Your task to perform on an android device: Check the news Image 0: 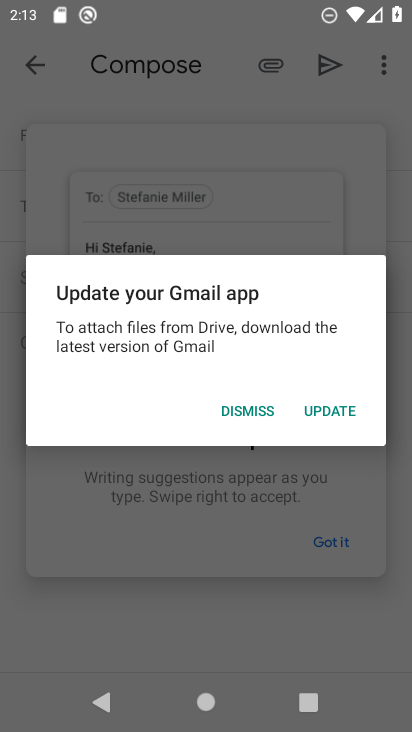
Step 0: click (236, 397)
Your task to perform on an android device: Check the news Image 1: 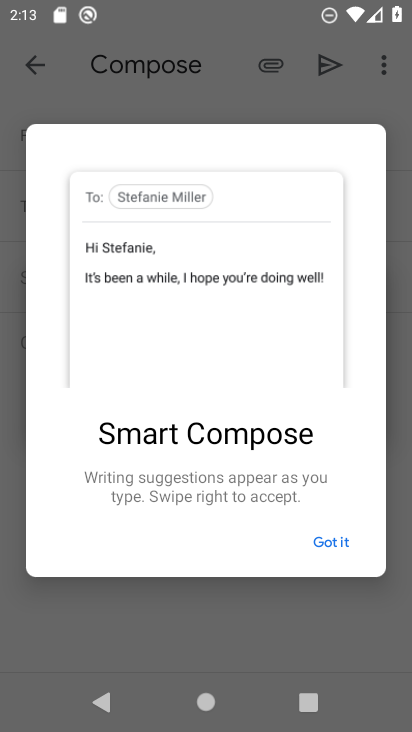
Step 1: click (333, 545)
Your task to perform on an android device: Check the news Image 2: 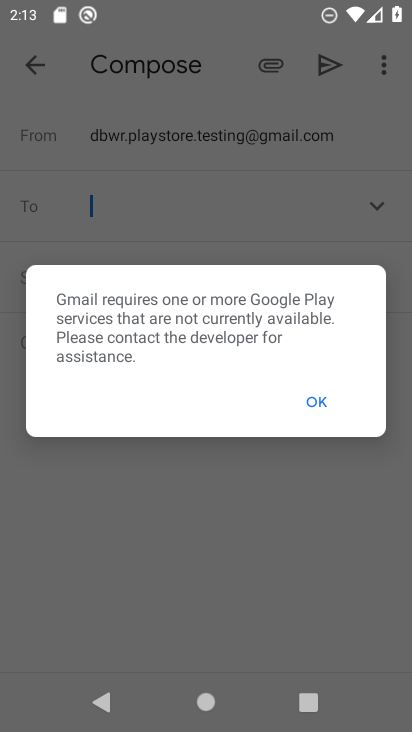
Step 2: click (305, 390)
Your task to perform on an android device: Check the news Image 3: 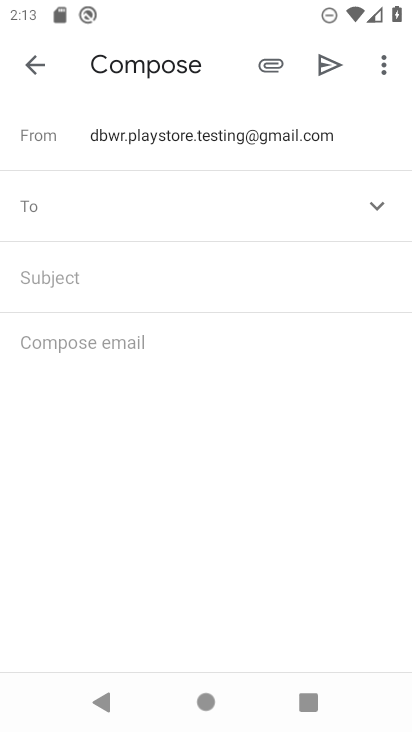
Step 3: click (26, 65)
Your task to perform on an android device: Check the news Image 4: 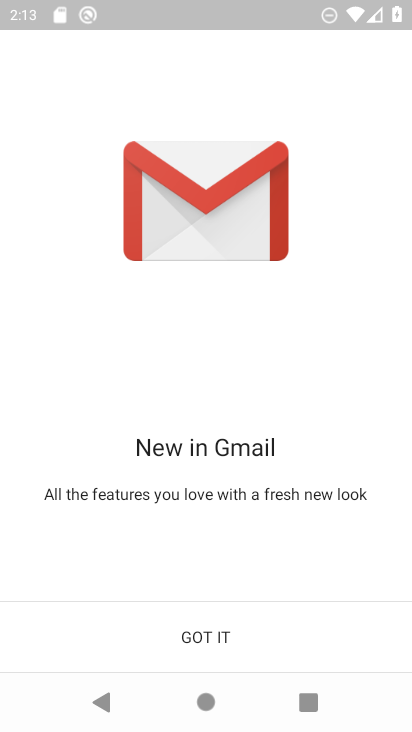
Step 4: click (209, 640)
Your task to perform on an android device: Check the news Image 5: 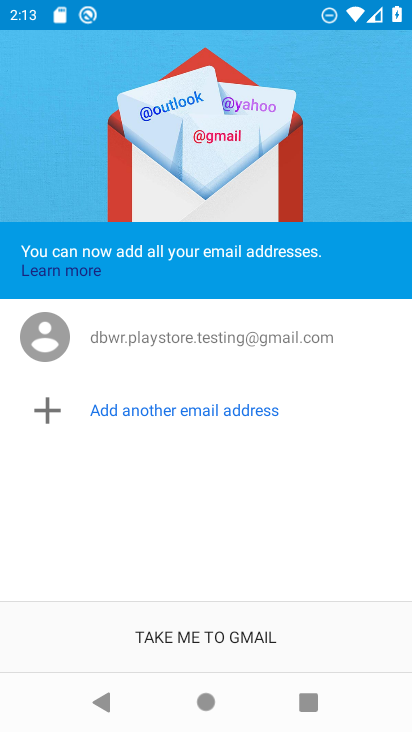
Step 5: click (204, 643)
Your task to perform on an android device: Check the news Image 6: 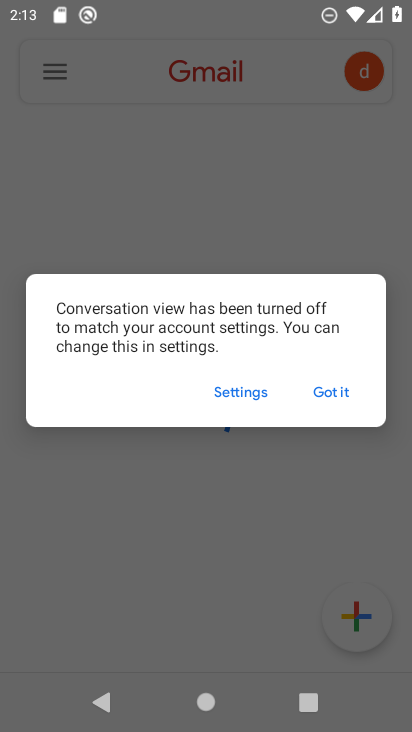
Step 6: press back button
Your task to perform on an android device: Check the news Image 7: 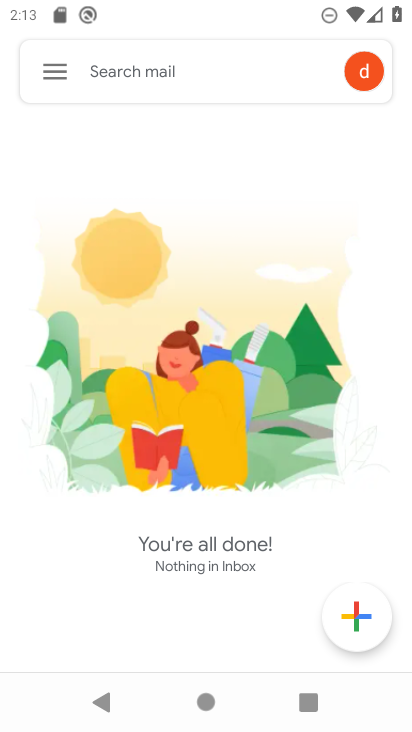
Step 7: press home button
Your task to perform on an android device: Check the news Image 8: 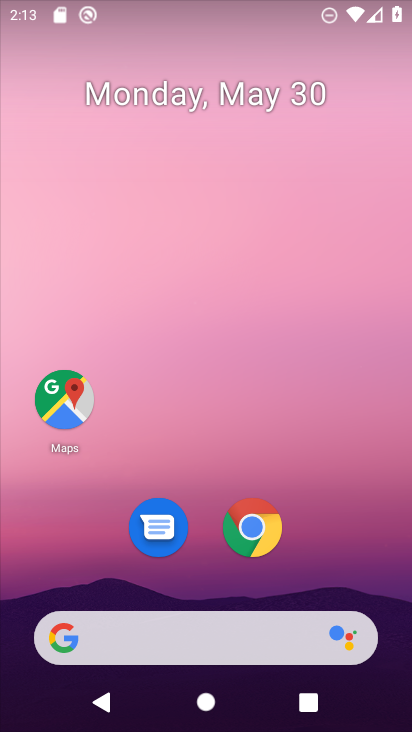
Step 8: drag from (70, 280) to (411, 490)
Your task to perform on an android device: Check the news Image 9: 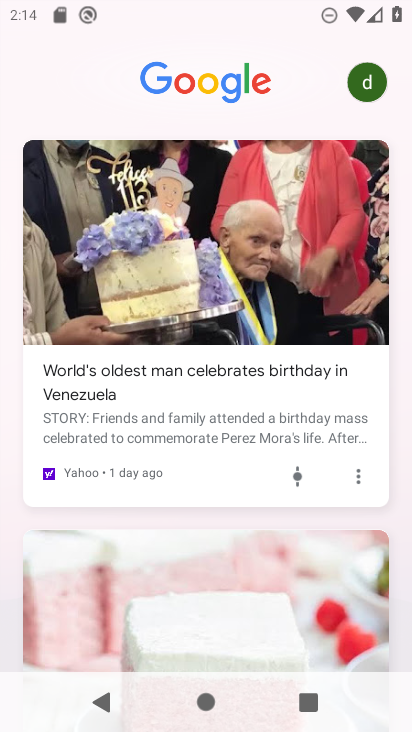
Step 9: drag from (190, 571) to (249, 261)
Your task to perform on an android device: Check the news Image 10: 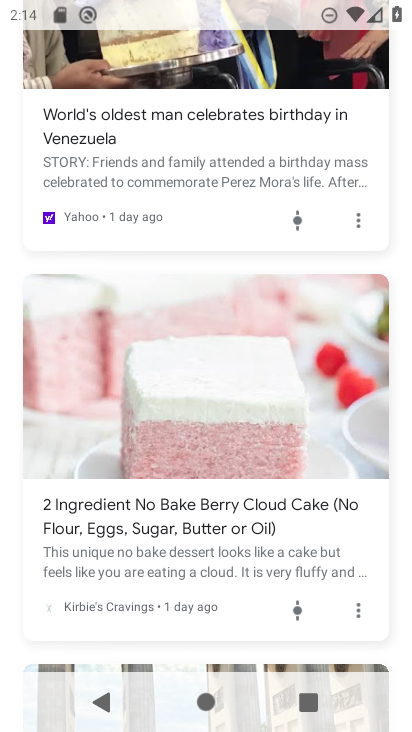
Step 10: drag from (239, 544) to (204, 401)
Your task to perform on an android device: Check the news Image 11: 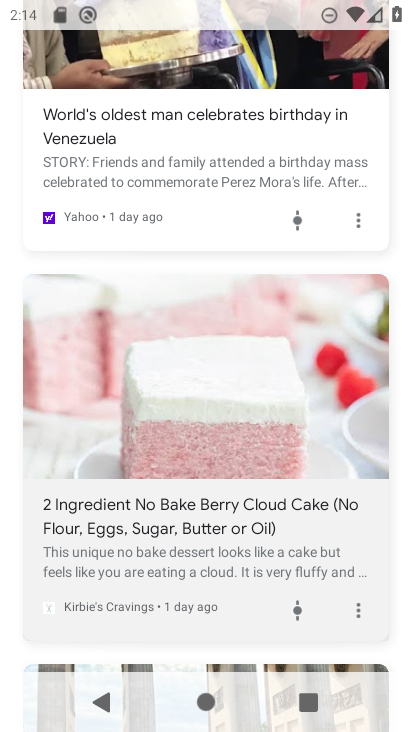
Step 11: drag from (143, 575) to (178, 324)
Your task to perform on an android device: Check the news Image 12: 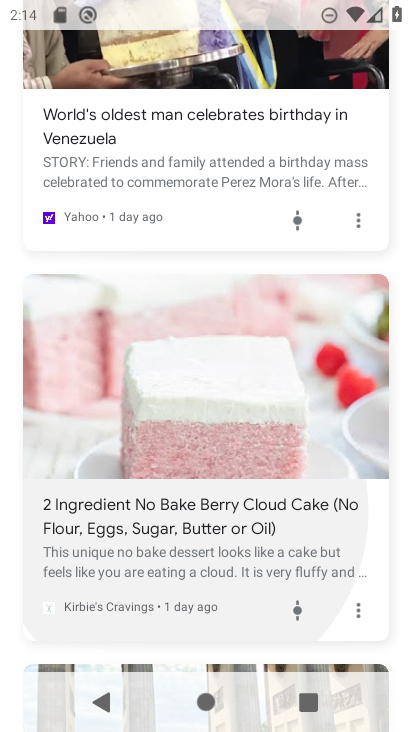
Step 12: drag from (219, 495) to (219, 258)
Your task to perform on an android device: Check the news Image 13: 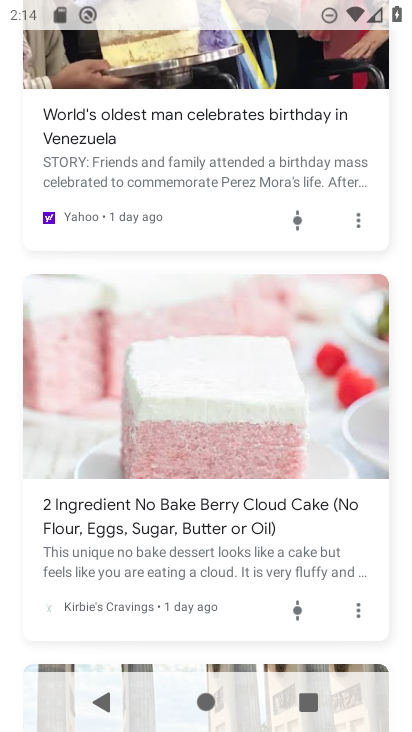
Step 13: drag from (181, 587) to (275, 429)
Your task to perform on an android device: Check the news Image 14: 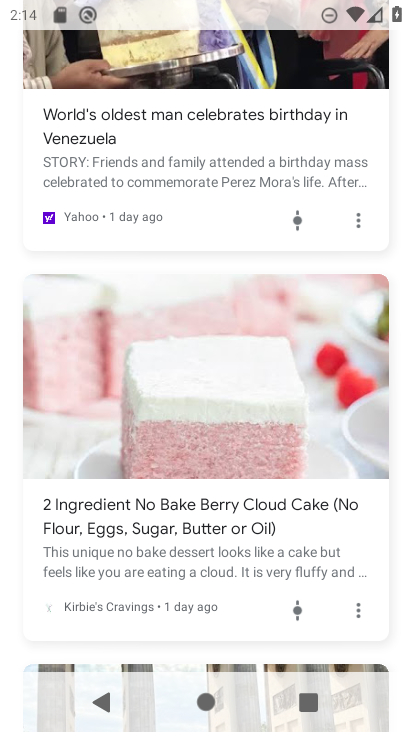
Step 14: drag from (263, 354) to (229, 713)
Your task to perform on an android device: Check the news Image 15: 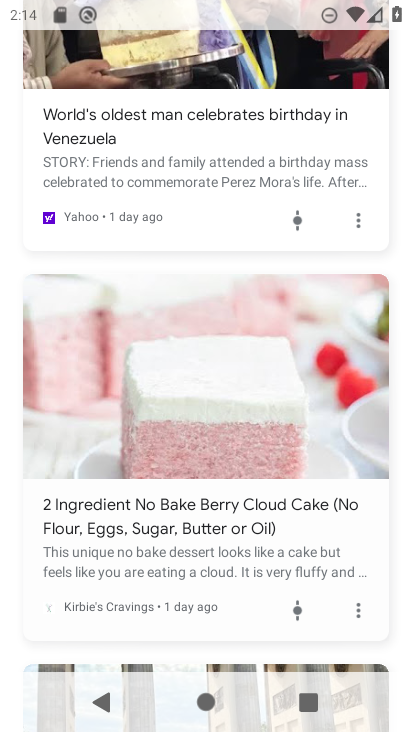
Step 15: click (223, 689)
Your task to perform on an android device: Check the news Image 16: 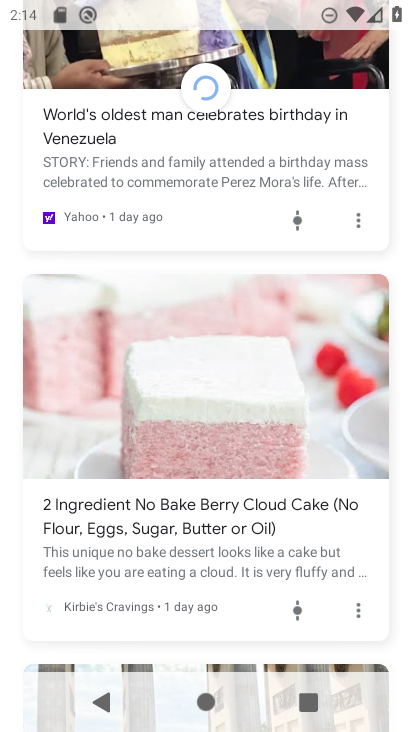
Step 16: task complete